Your task to perform on an android device: Search for Italian restaurants on Maps Image 0: 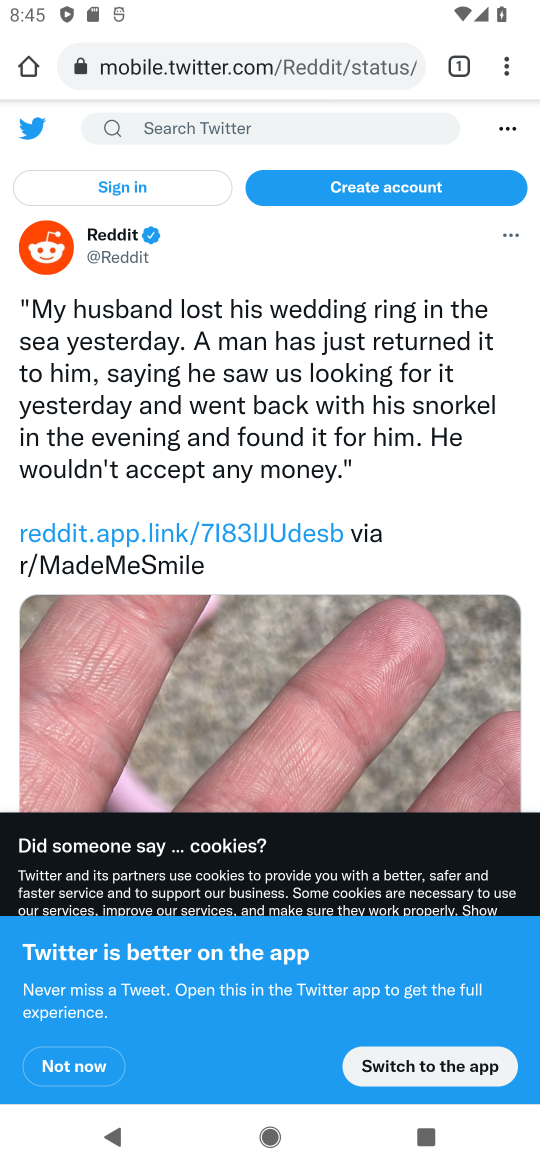
Step 0: press back button
Your task to perform on an android device: Search for Italian restaurants on Maps Image 1: 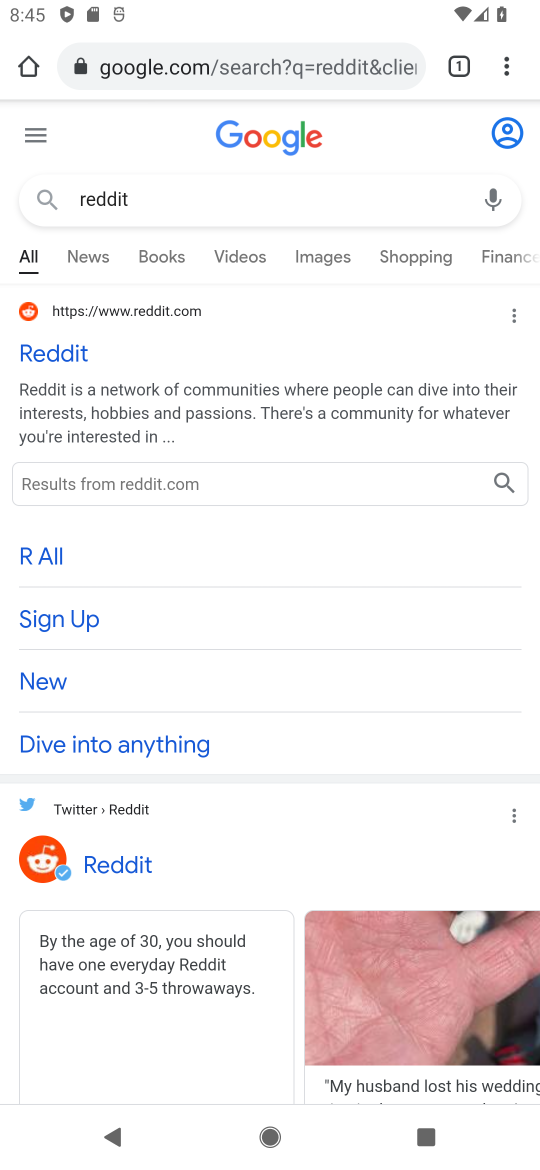
Step 1: press back button
Your task to perform on an android device: Search for Italian restaurants on Maps Image 2: 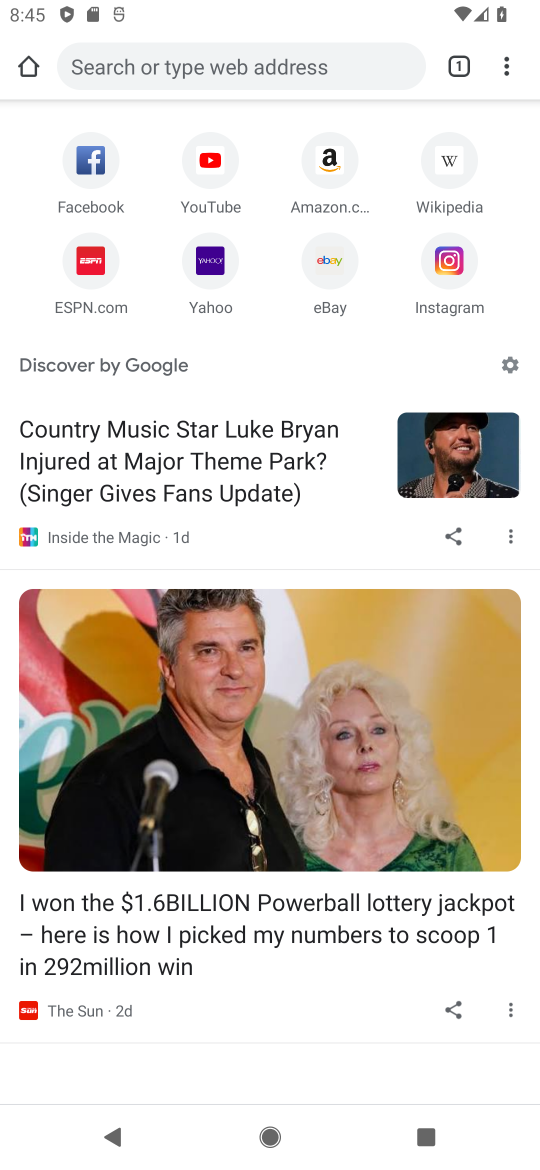
Step 2: press back button
Your task to perform on an android device: Search for Italian restaurants on Maps Image 3: 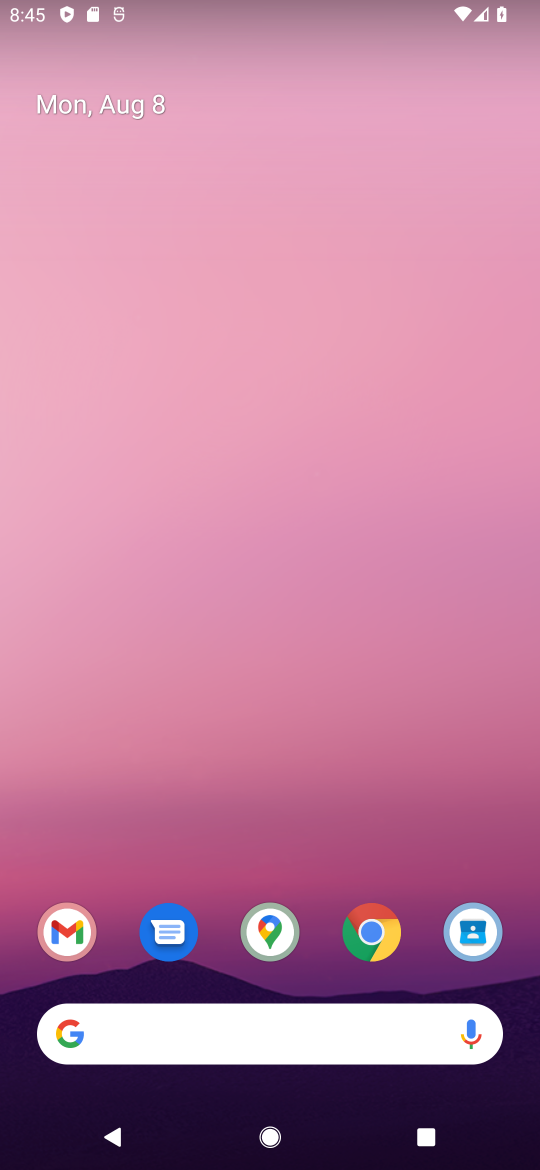
Step 3: drag from (293, 611) to (383, 4)
Your task to perform on an android device: Search for Italian restaurants on Maps Image 4: 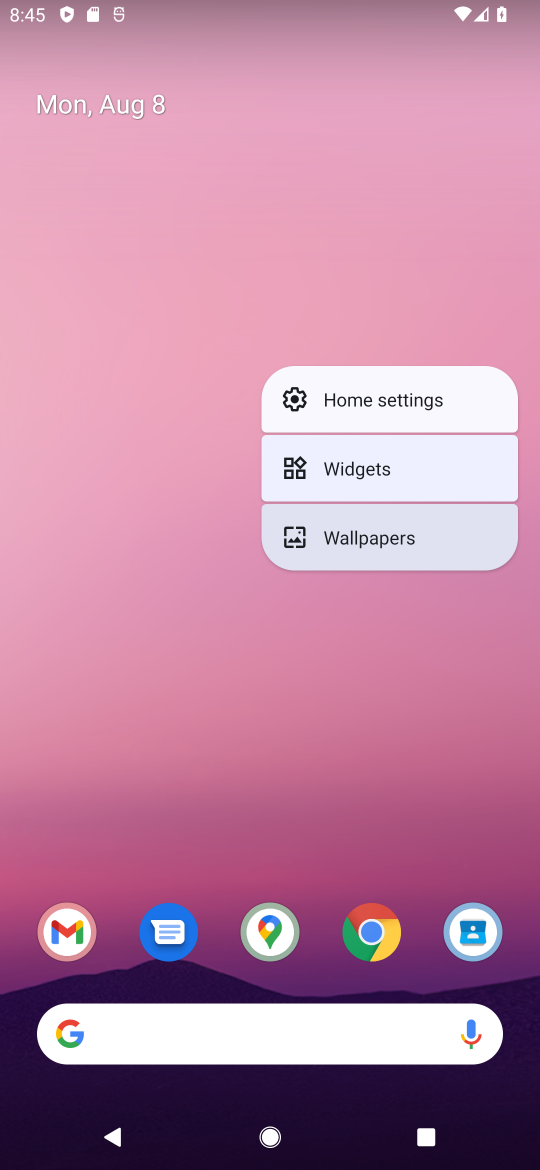
Step 4: click (264, 930)
Your task to perform on an android device: Search for Italian restaurants on Maps Image 5: 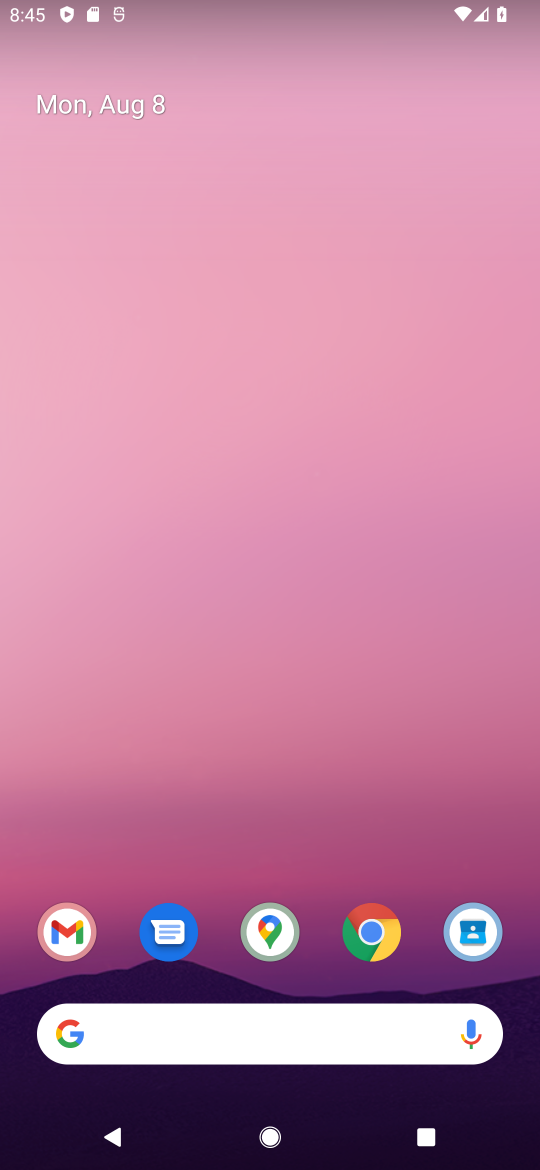
Step 5: click (269, 925)
Your task to perform on an android device: Search for Italian restaurants on Maps Image 6: 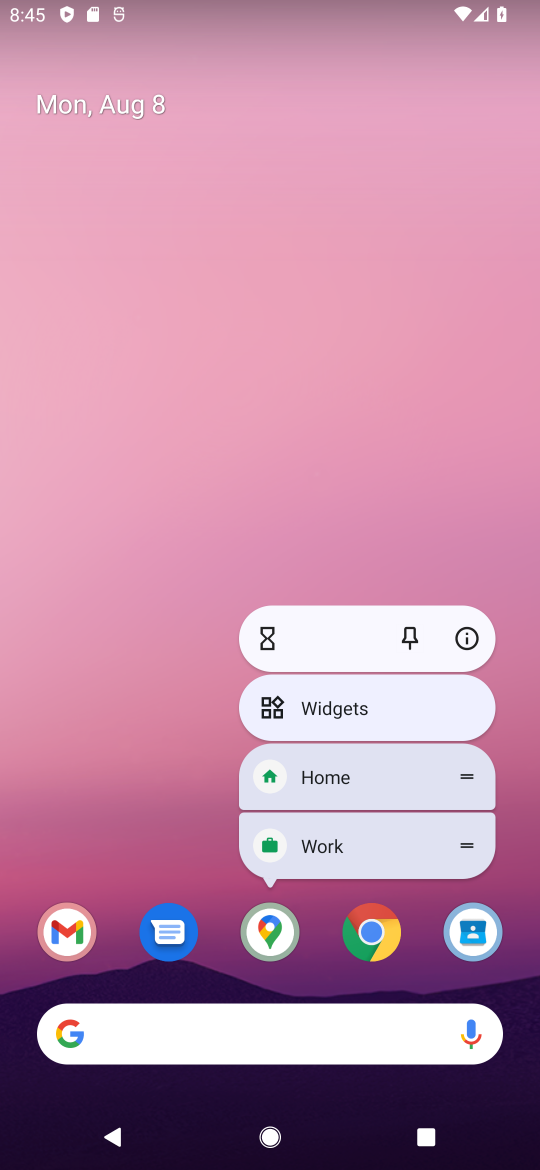
Step 6: click (277, 932)
Your task to perform on an android device: Search for Italian restaurants on Maps Image 7: 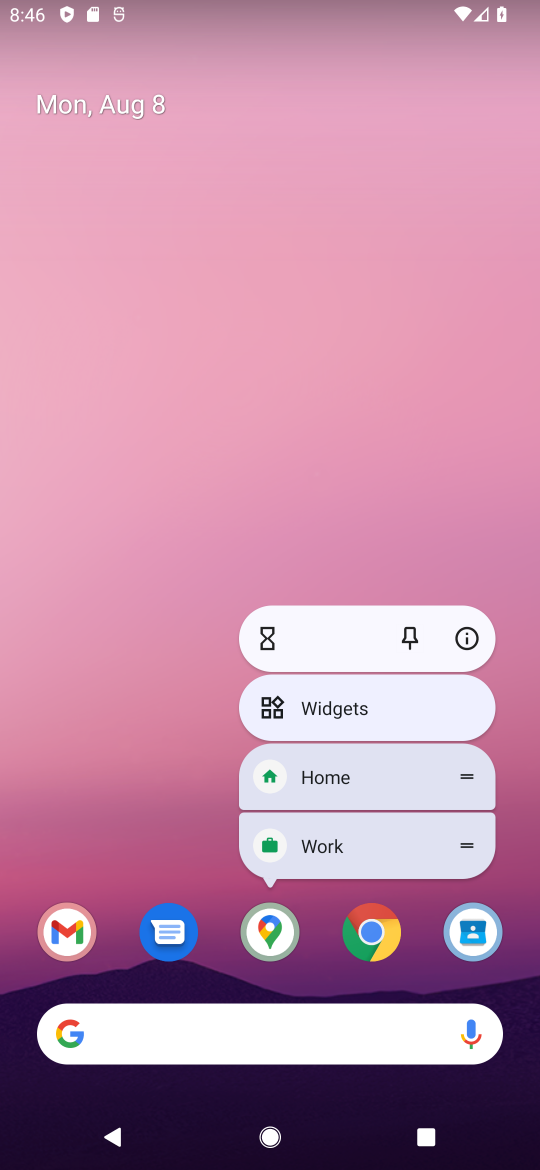
Step 7: click (261, 935)
Your task to perform on an android device: Search for Italian restaurants on Maps Image 8: 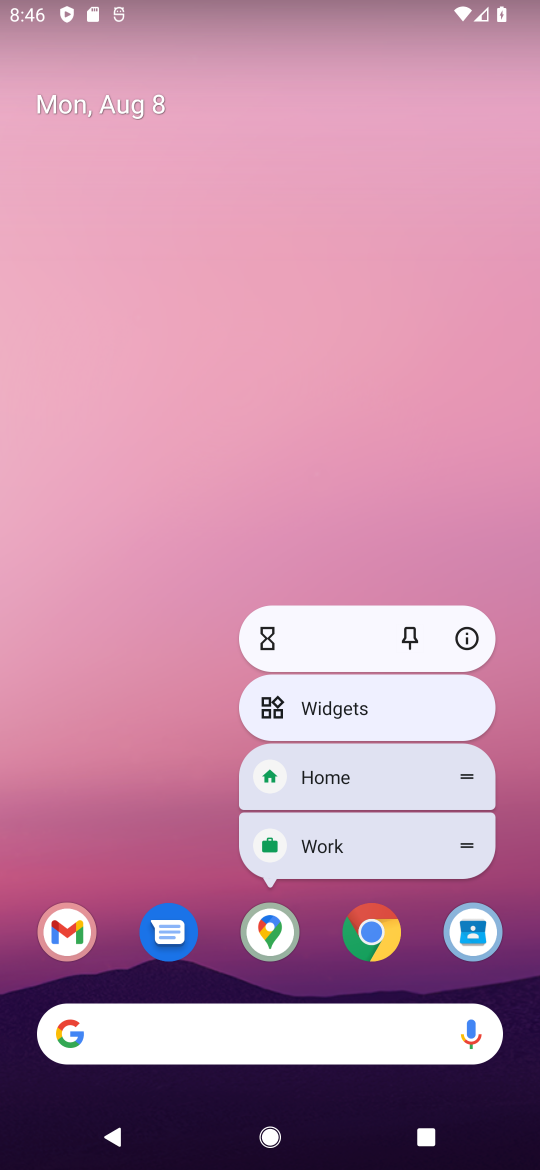
Step 8: click (290, 924)
Your task to perform on an android device: Search for Italian restaurants on Maps Image 9: 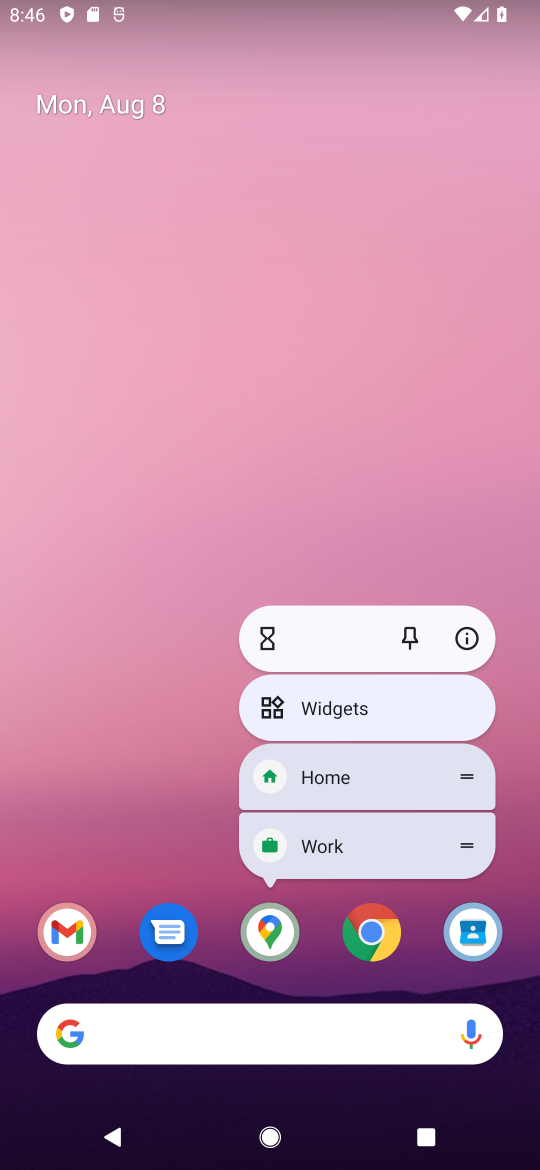
Step 9: click (270, 925)
Your task to perform on an android device: Search for Italian restaurants on Maps Image 10: 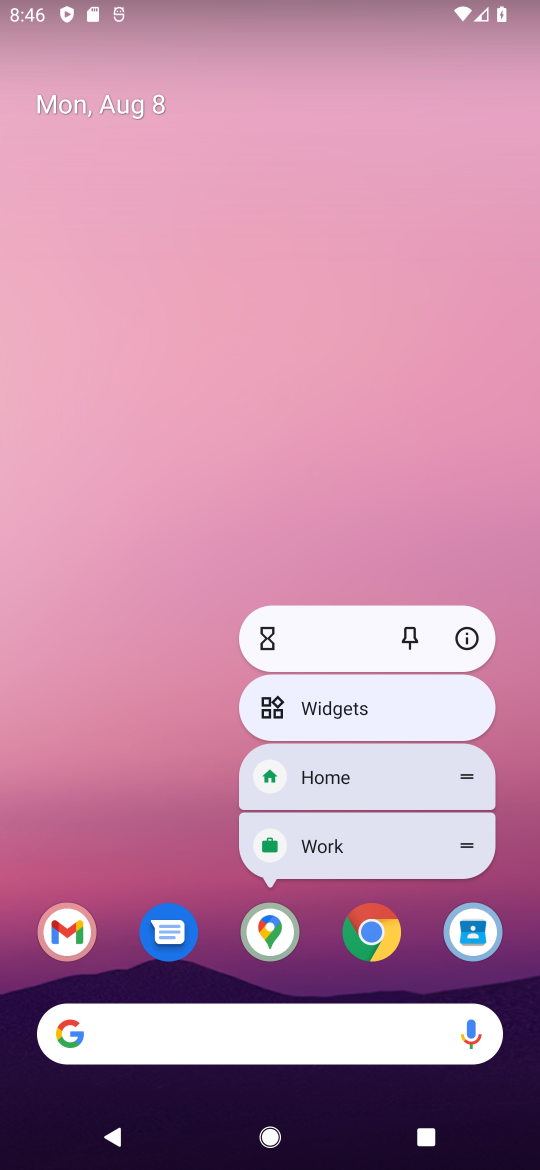
Step 10: click (274, 918)
Your task to perform on an android device: Search for Italian restaurants on Maps Image 11: 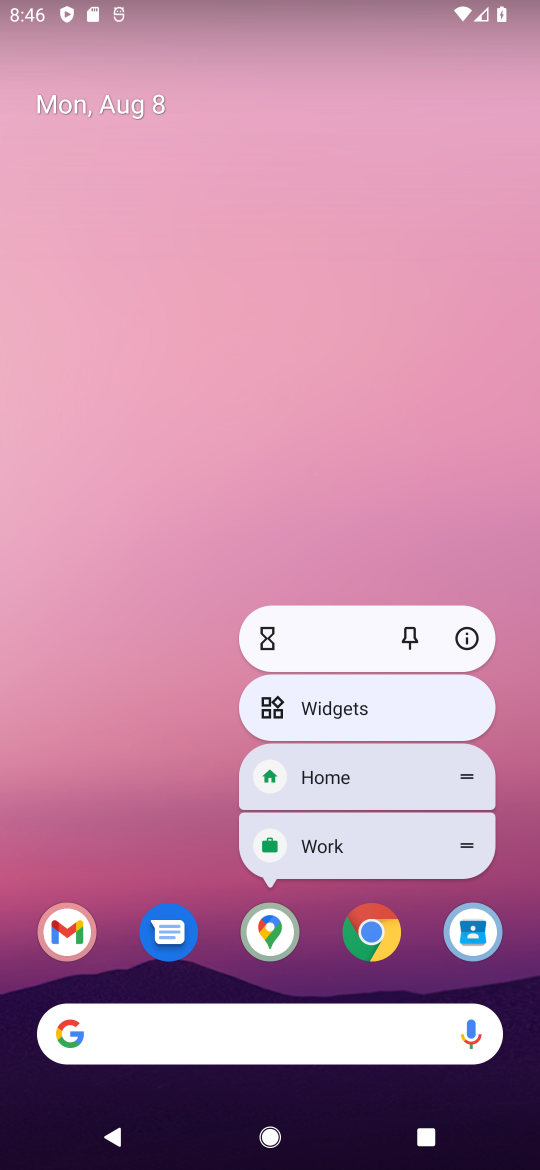
Step 11: click (269, 934)
Your task to perform on an android device: Search for Italian restaurants on Maps Image 12: 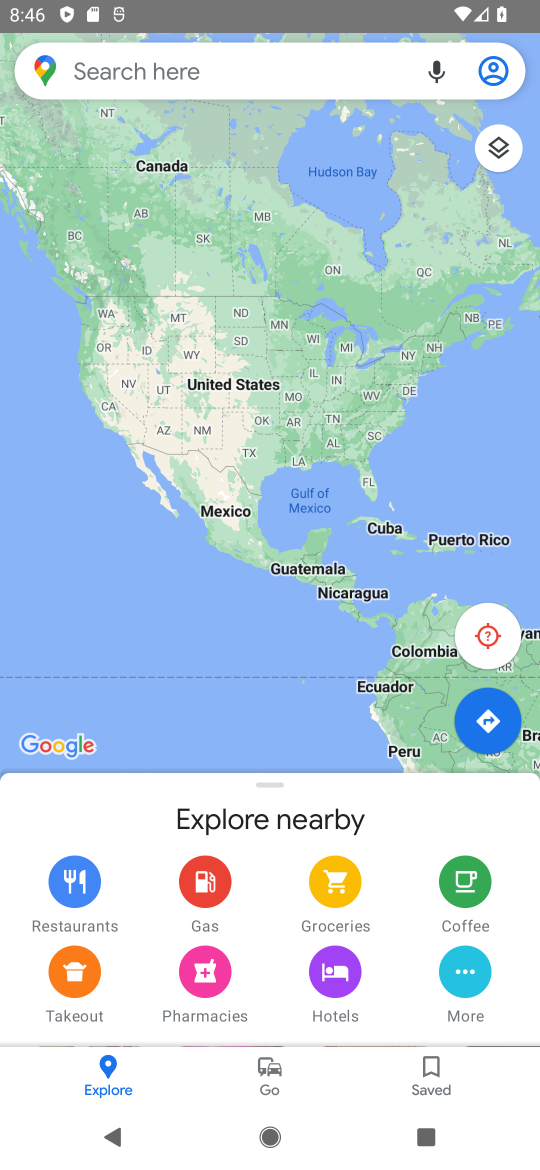
Step 12: click (200, 76)
Your task to perform on an android device: Search for Italian restaurants on Maps Image 13: 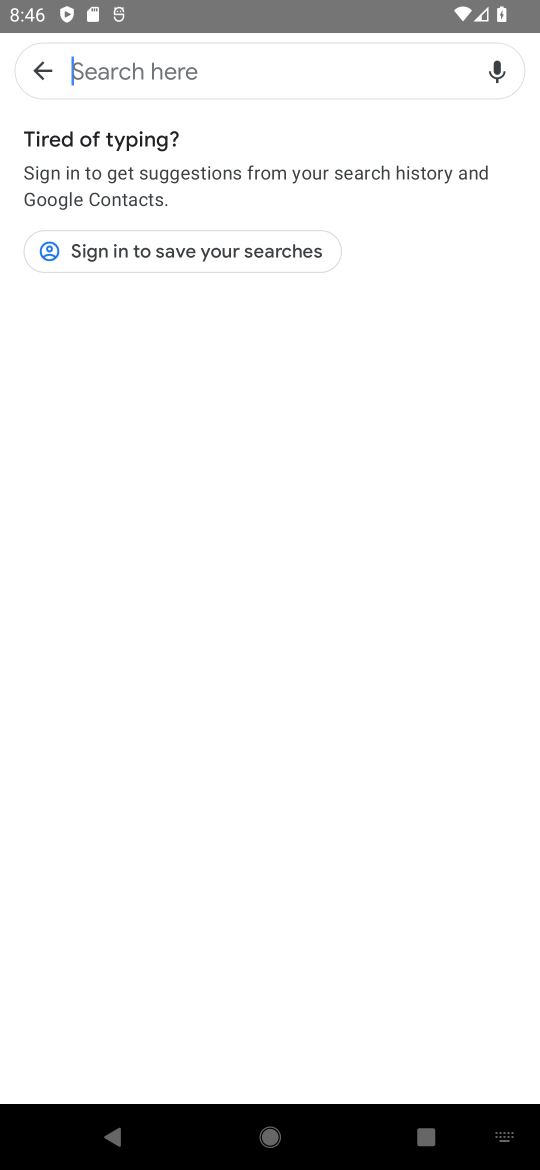
Step 13: click (299, 90)
Your task to perform on an android device: Search for Italian restaurants on Maps Image 14: 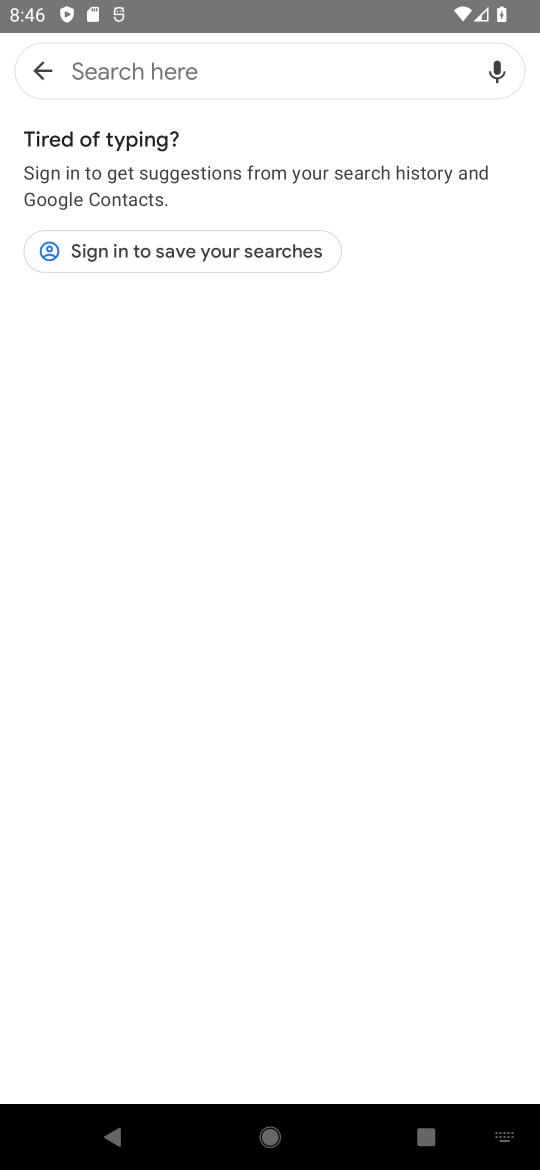
Step 14: type "italian restaurants"
Your task to perform on an android device: Search for Italian restaurants on Maps Image 15: 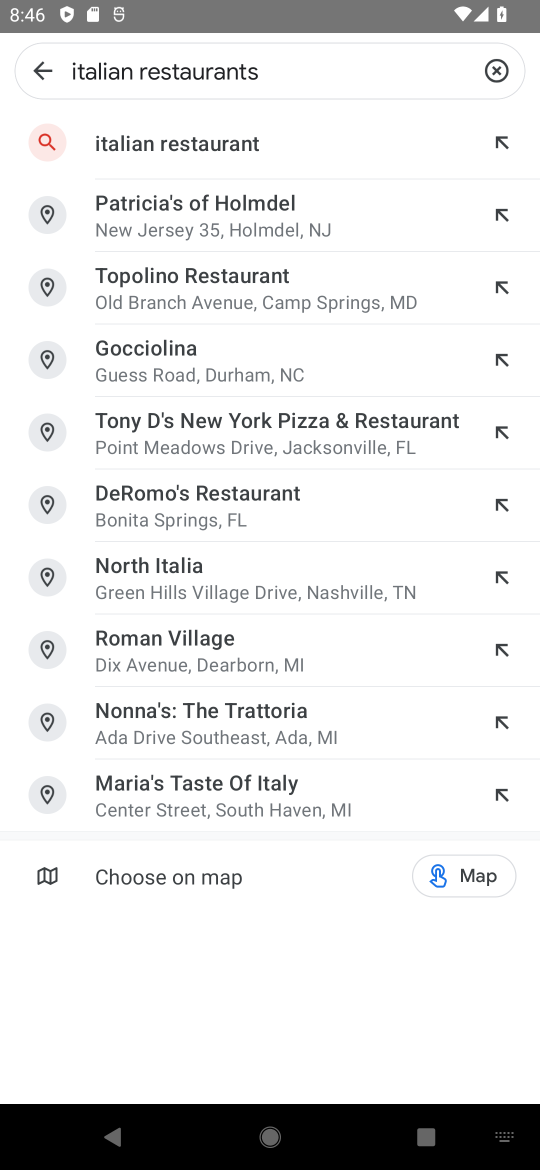
Step 15: click (227, 131)
Your task to perform on an android device: Search for Italian restaurants on Maps Image 16: 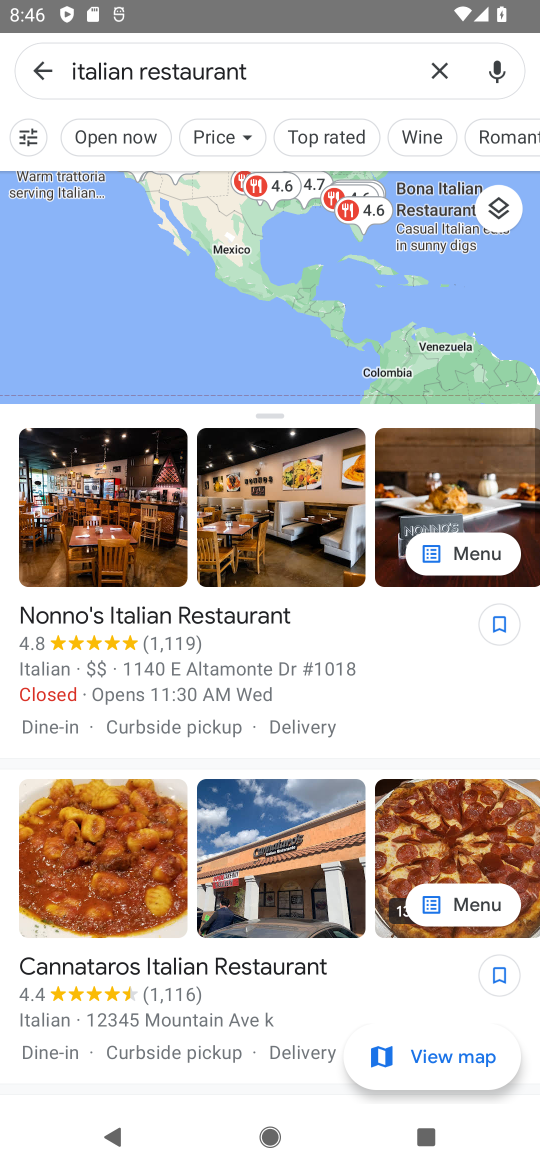
Step 16: task complete